Your task to perform on an android device: turn off notifications in google photos Image 0: 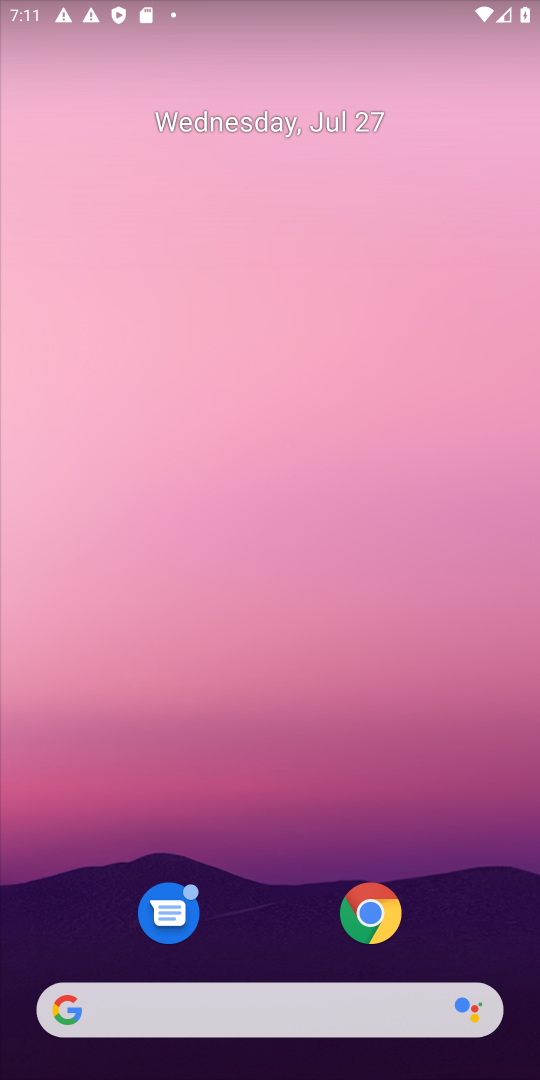
Step 0: drag from (259, 839) to (294, 23)
Your task to perform on an android device: turn off notifications in google photos Image 1: 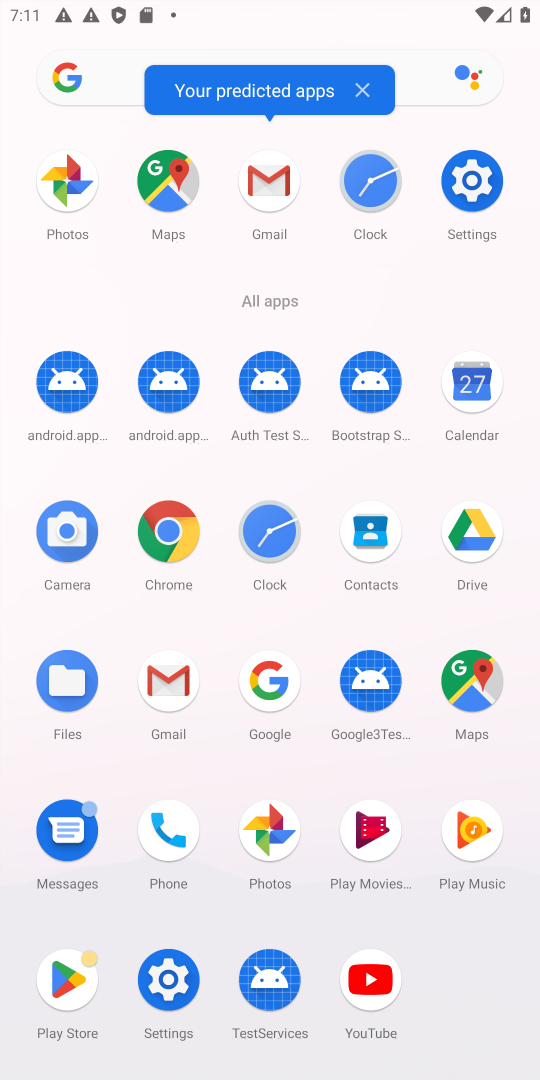
Step 1: click (59, 174)
Your task to perform on an android device: turn off notifications in google photos Image 2: 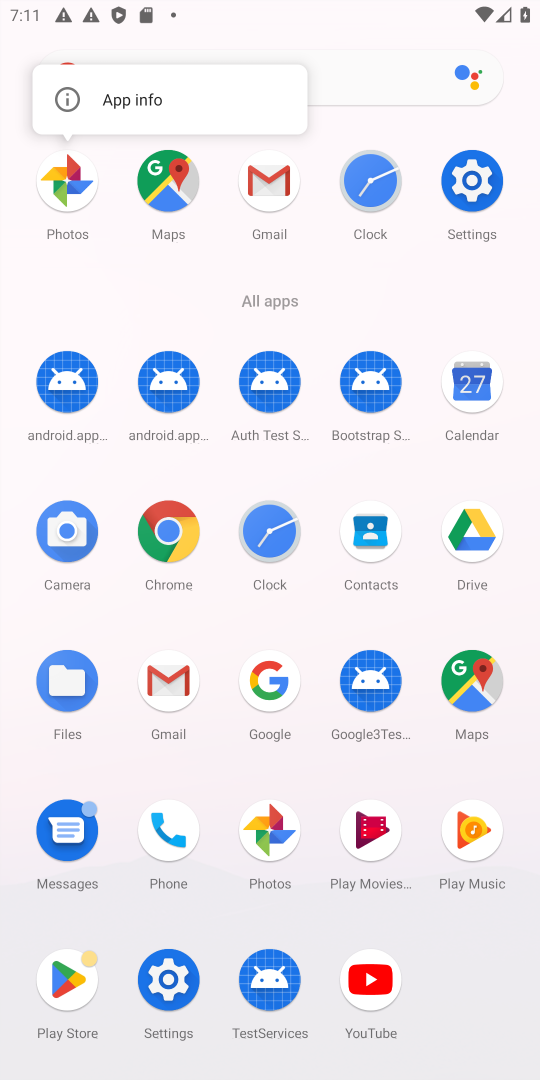
Step 2: click (159, 102)
Your task to perform on an android device: turn off notifications in google photos Image 3: 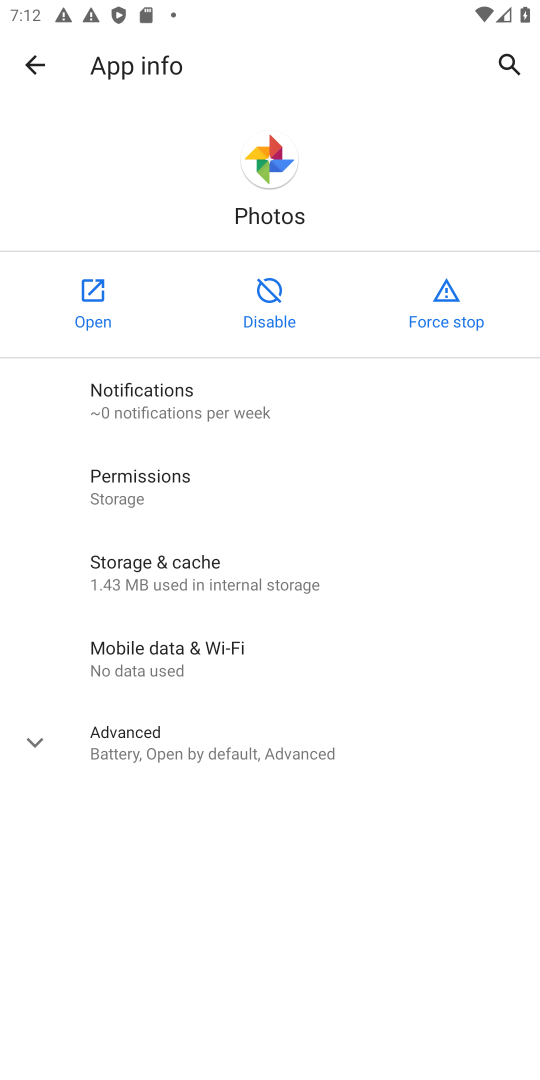
Step 3: click (166, 372)
Your task to perform on an android device: turn off notifications in google photos Image 4: 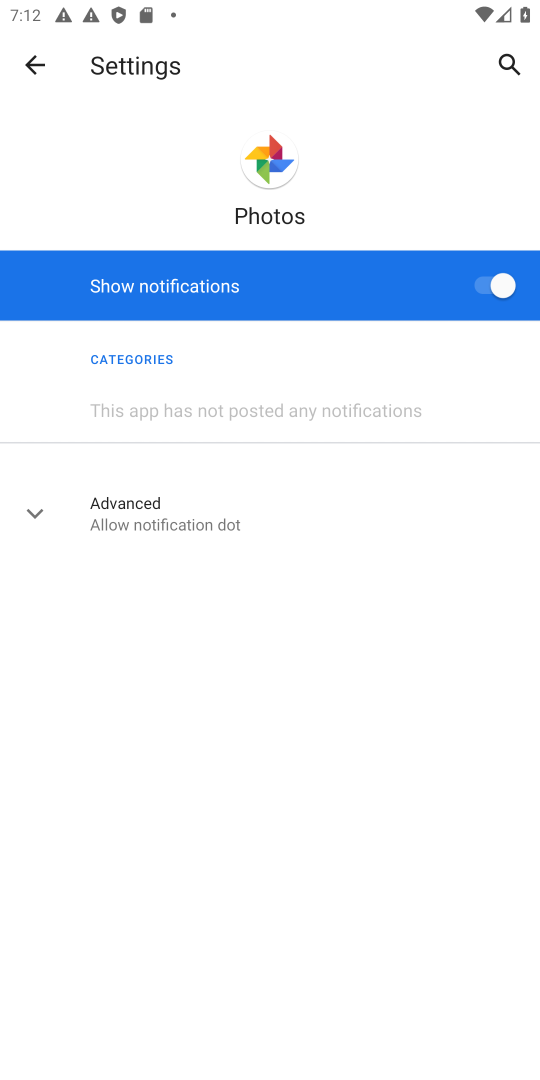
Step 4: click (516, 291)
Your task to perform on an android device: turn off notifications in google photos Image 5: 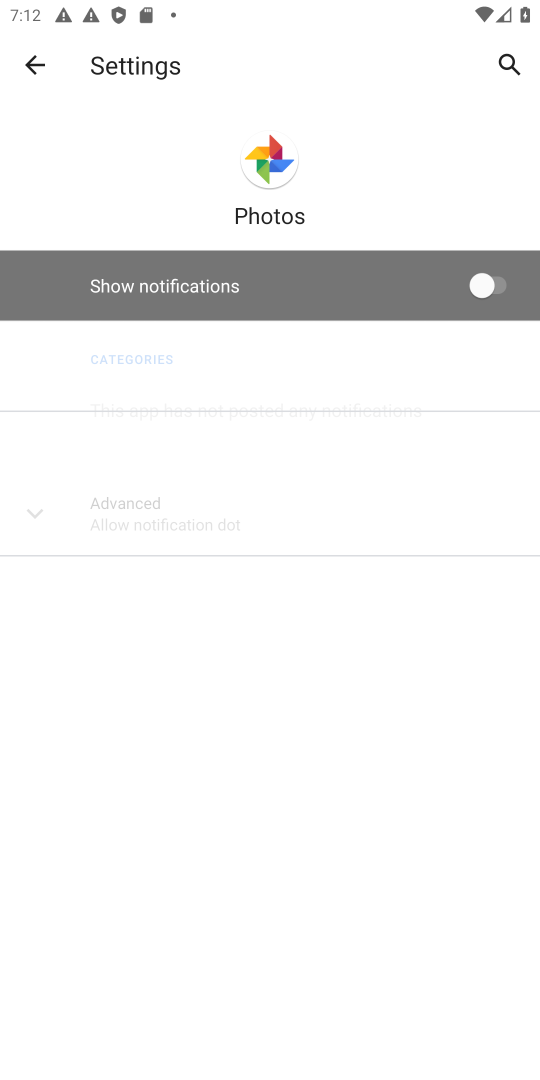
Step 5: task complete